Your task to perform on an android device: What is the recent news? Image 0: 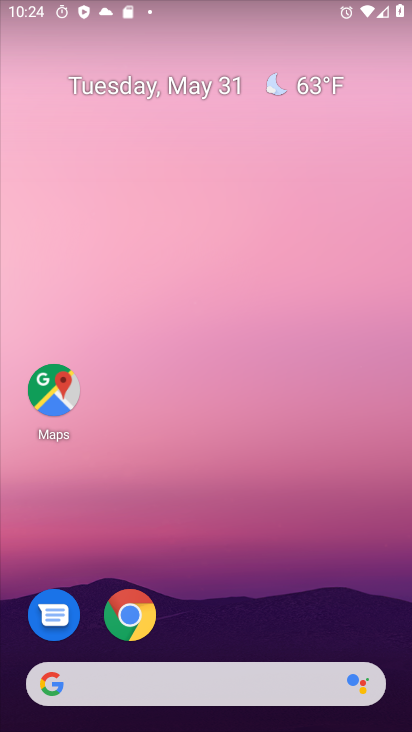
Step 0: drag from (11, 304) to (404, 311)
Your task to perform on an android device: What is the recent news? Image 1: 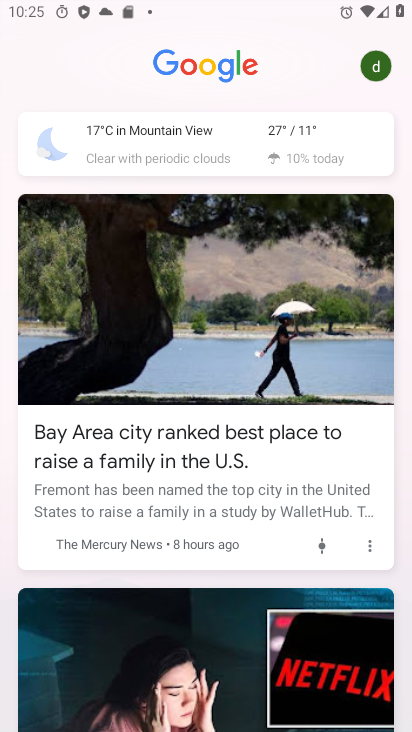
Step 1: task complete